Your task to perform on an android device: See recent photos Image 0: 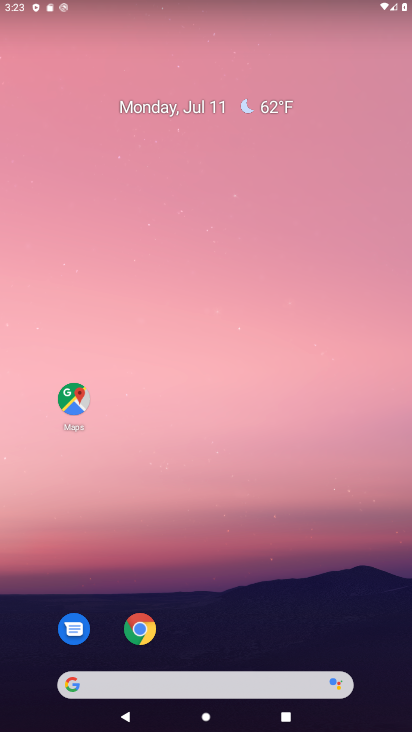
Step 0: drag from (203, 638) to (145, 175)
Your task to perform on an android device: See recent photos Image 1: 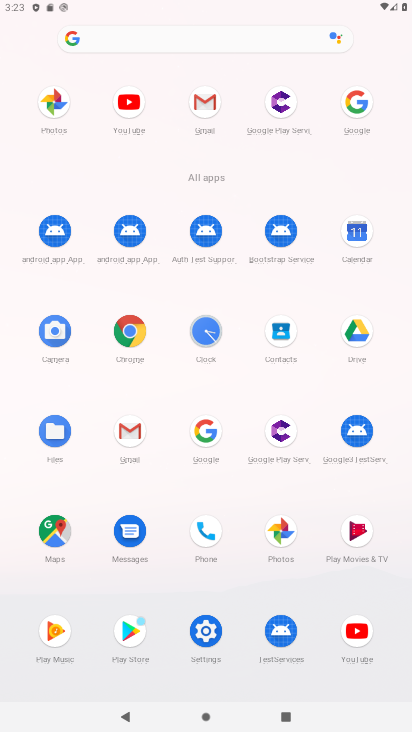
Step 1: click (278, 530)
Your task to perform on an android device: See recent photos Image 2: 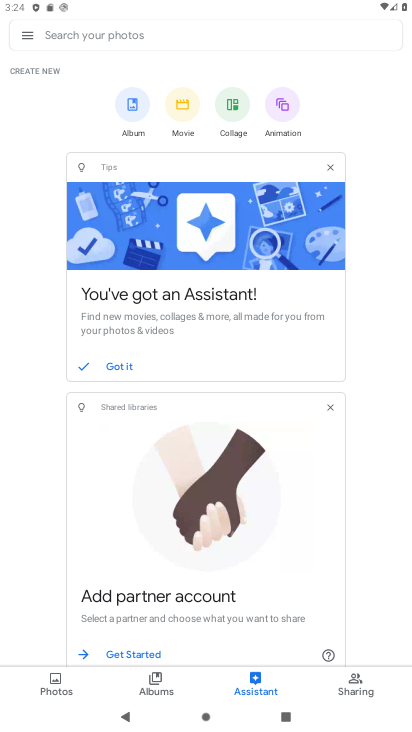
Step 2: click (55, 687)
Your task to perform on an android device: See recent photos Image 3: 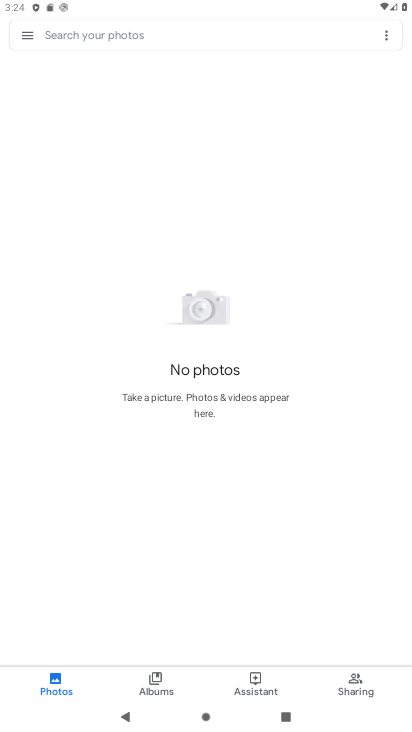
Step 3: task complete